Your task to perform on an android device: Go to internet settings Image 0: 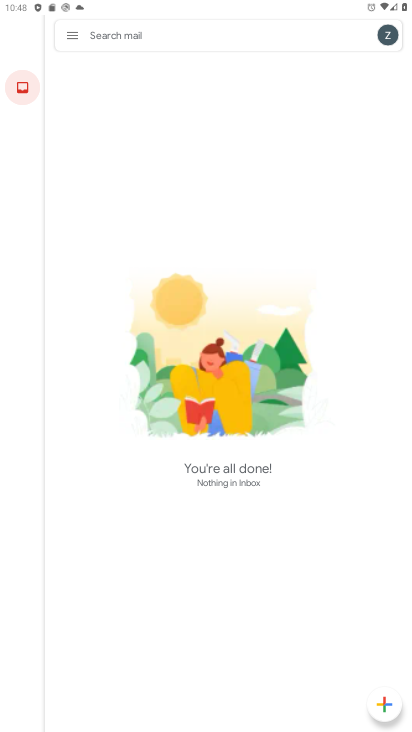
Step 0: press home button
Your task to perform on an android device: Go to internet settings Image 1: 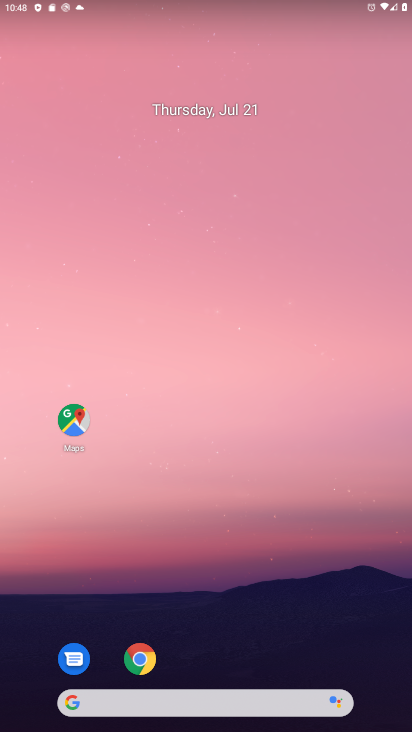
Step 1: drag from (232, 679) to (202, 105)
Your task to perform on an android device: Go to internet settings Image 2: 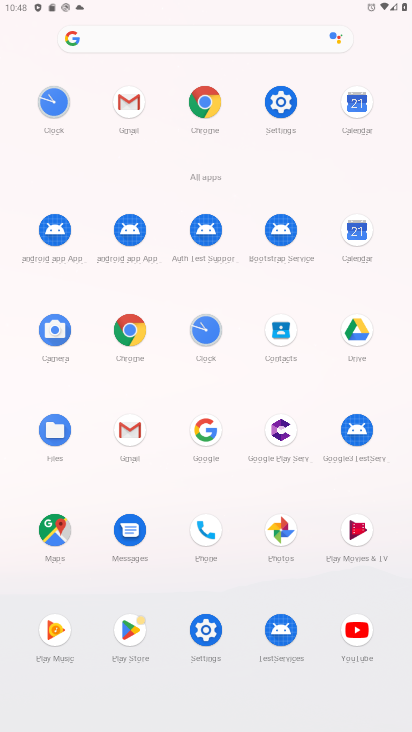
Step 2: click (283, 106)
Your task to perform on an android device: Go to internet settings Image 3: 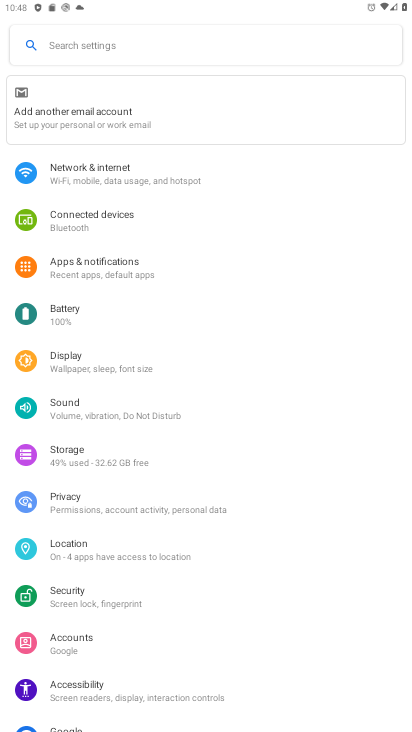
Step 3: click (174, 179)
Your task to perform on an android device: Go to internet settings Image 4: 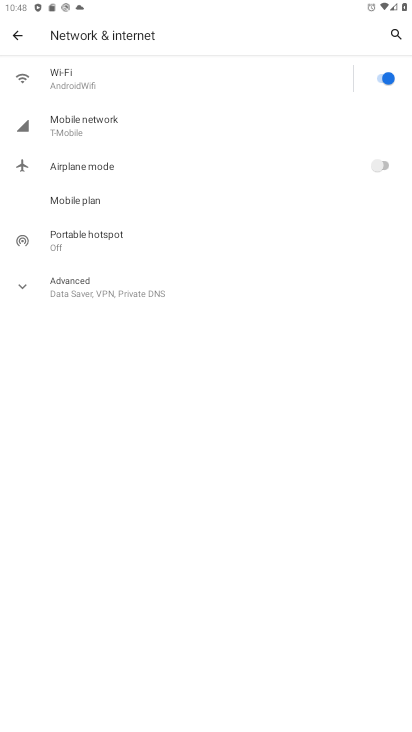
Step 4: task complete